Your task to perform on an android device: Search for razer blade on newegg, select the first entry, add it to the cart, then select checkout. Image 0: 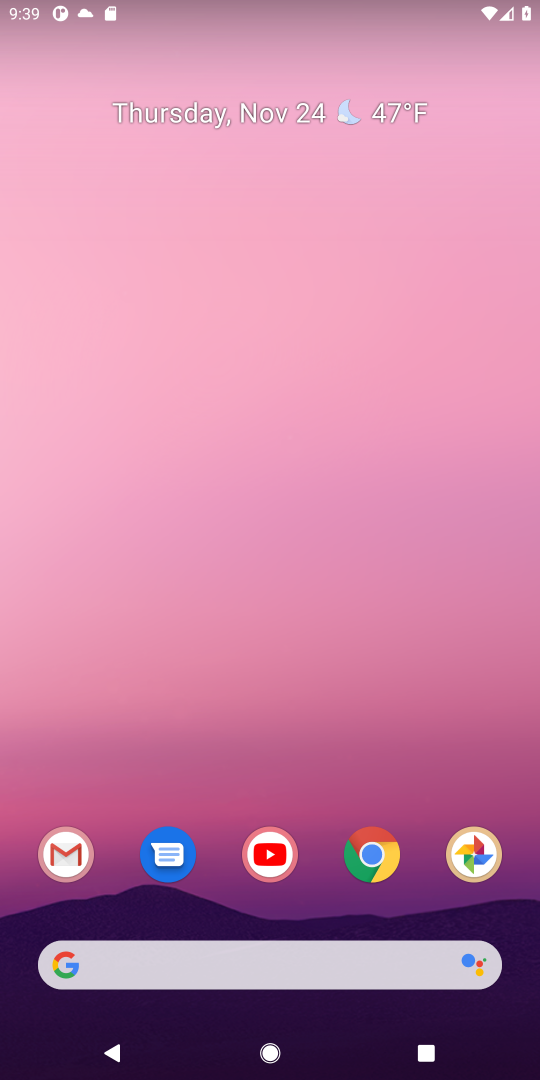
Step 0: click (374, 860)
Your task to perform on an android device: Search for razer blade on newegg, select the first entry, add it to the cart, then select checkout. Image 1: 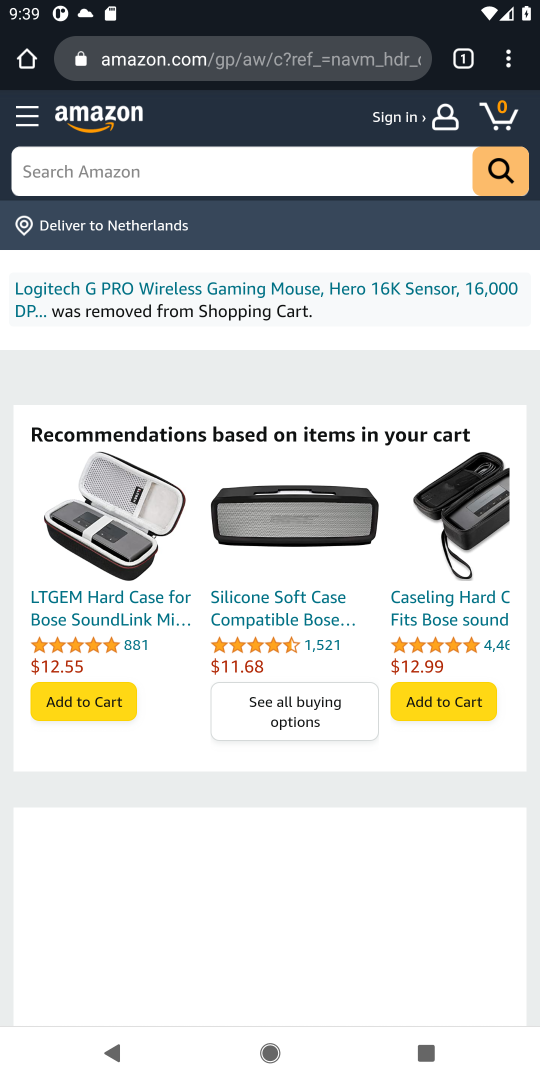
Step 1: click (250, 66)
Your task to perform on an android device: Search for razer blade on newegg, select the first entry, add it to the cart, then select checkout. Image 2: 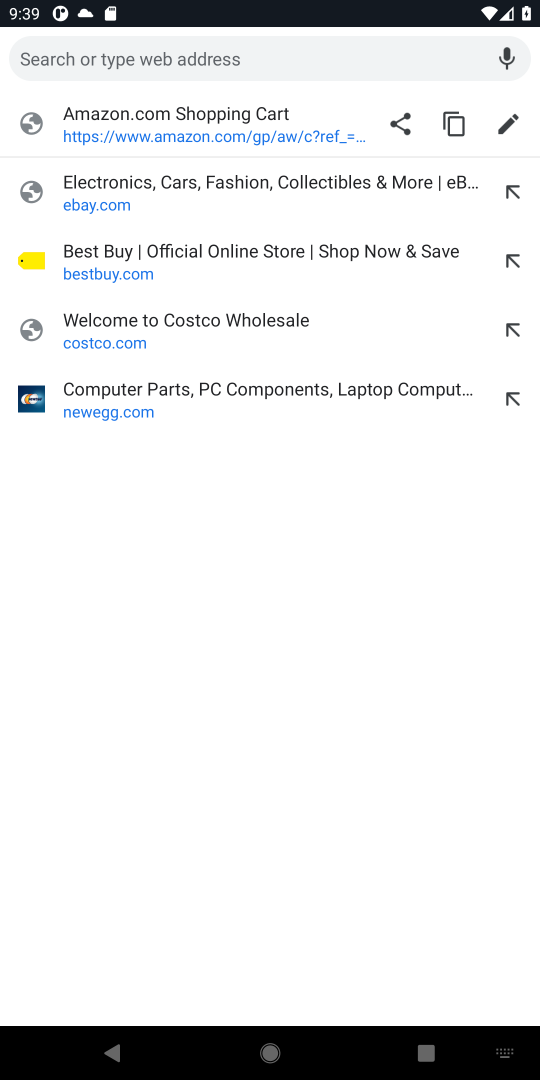
Step 2: click (85, 400)
Your task to perform on an android device: Search for razer blade on newegg, select the first entry, add it to the cart, then select checkout. Image 3: 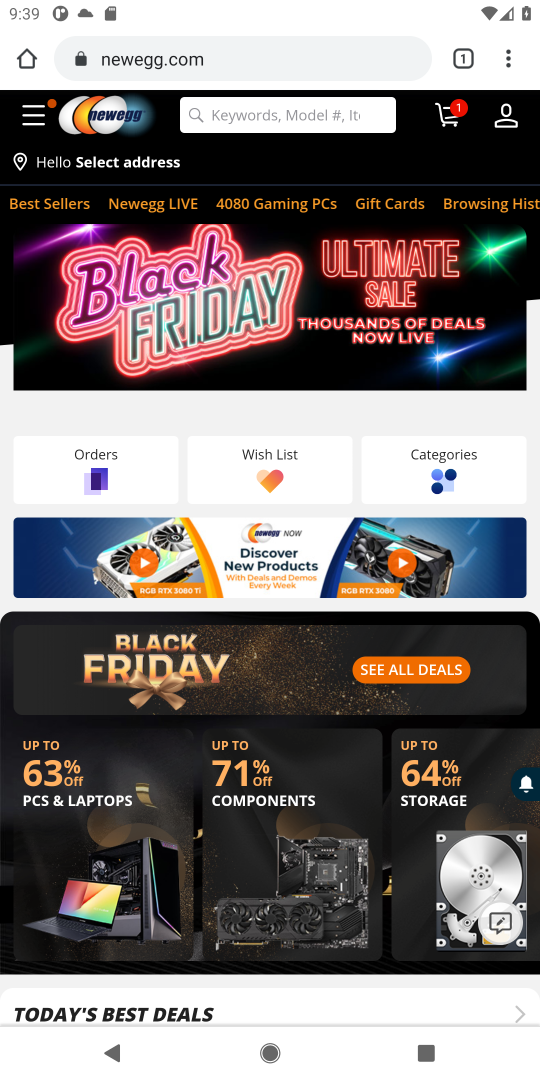
Step 3: click (306, 117)
Your task to perform on an android device: Search for razer blade on newegg, select the first entry, add it to the cart, then select checkout. Image 4: 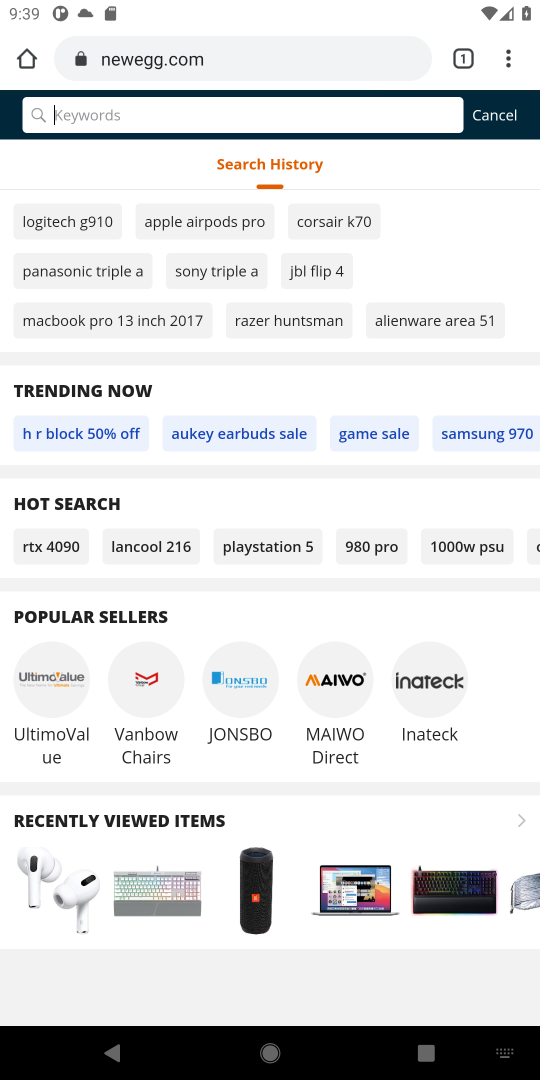
Step 4: type " razer blade"
Your task to perform on an android device: Search for razer blade on newegg, select the first entry, add it to the cart, then select checkout. Image 5: 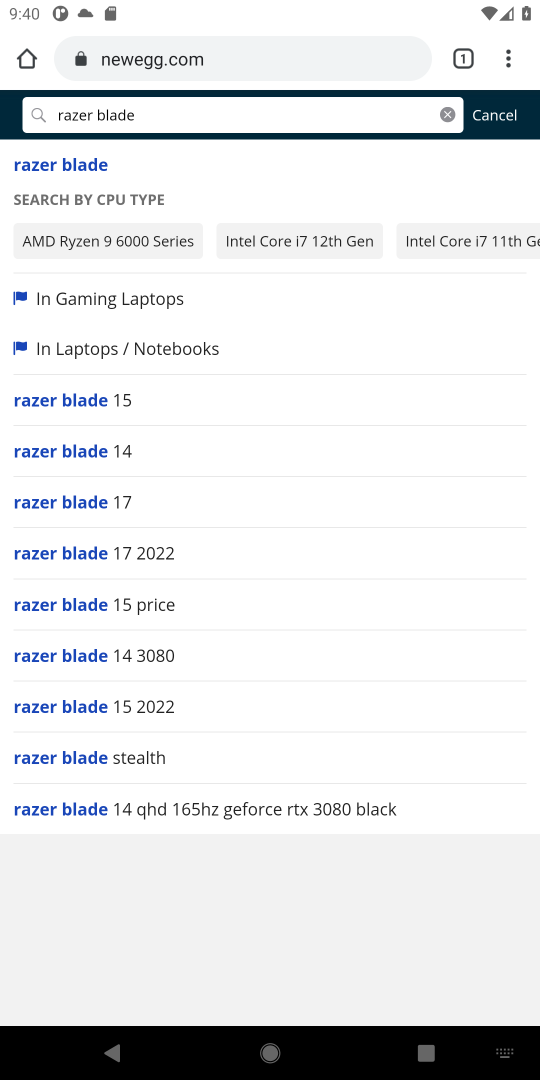
Step 5: click (48, 170)
Your task to perform on an android device: Search for razer blade on newegg, select the first entry, add it to the cart, then select checkout. Image 6: 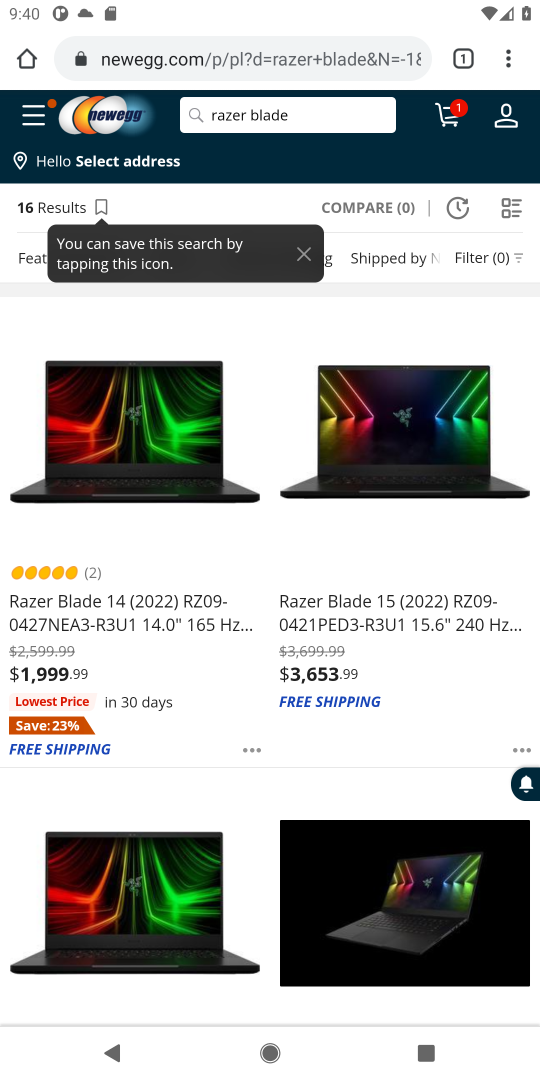
Step 6: click (109, 535)
Your task to perform on an android device: Search for razer blade on newegg, select the first entry, add it to the cart, then select checkout. Image 7: 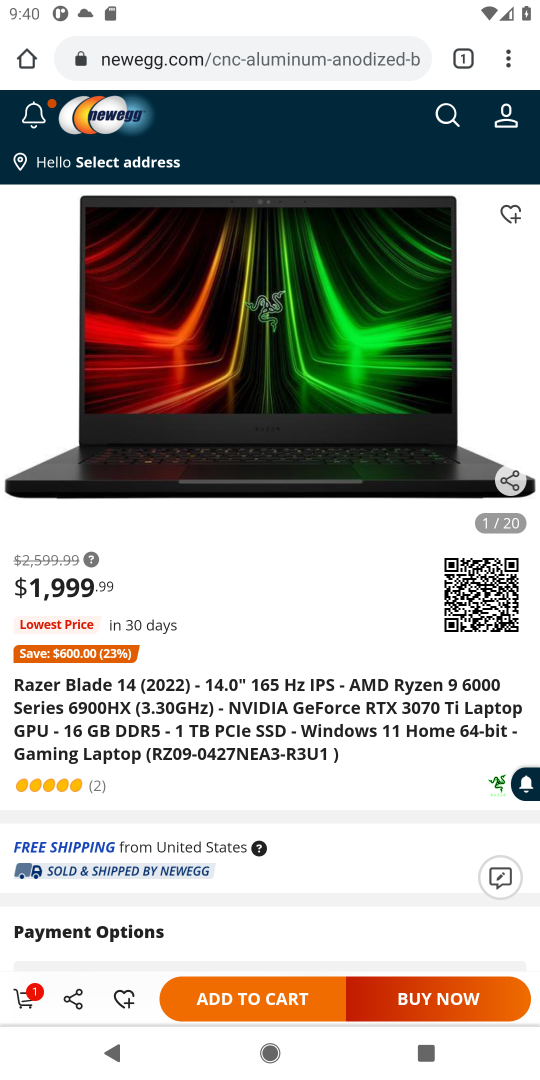
Step 7: click (232, 1004)
Your task to perform on an android device: Search for razer blade on newegg, select the first entry, add it to the cart, then select checkout. Image 8: 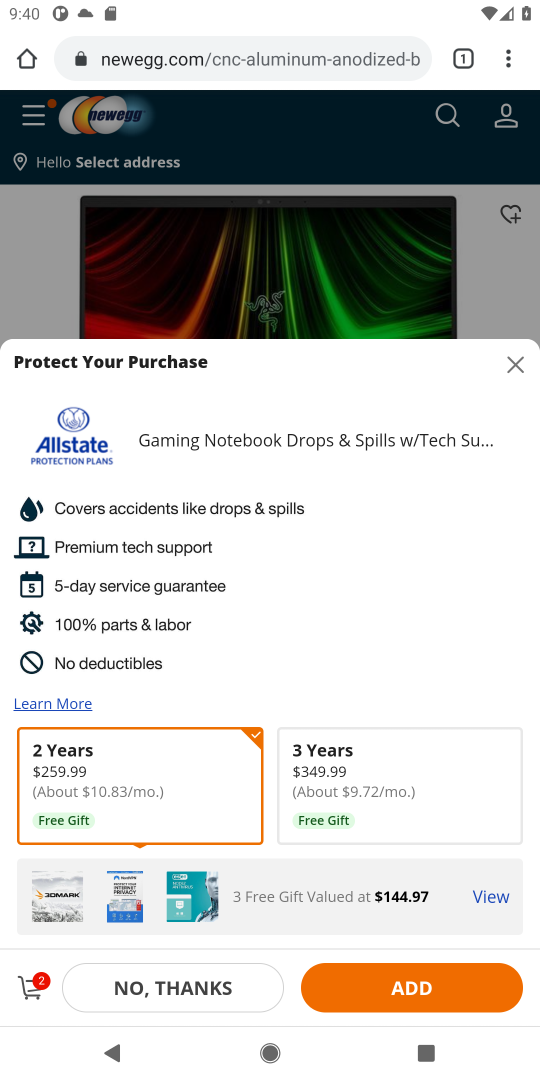
Step 8: click (35, 993)
Your task to perform on an android device: Search for razer blade on newegg, select the first entry, add it to the cart, then select checkout. Image 9: 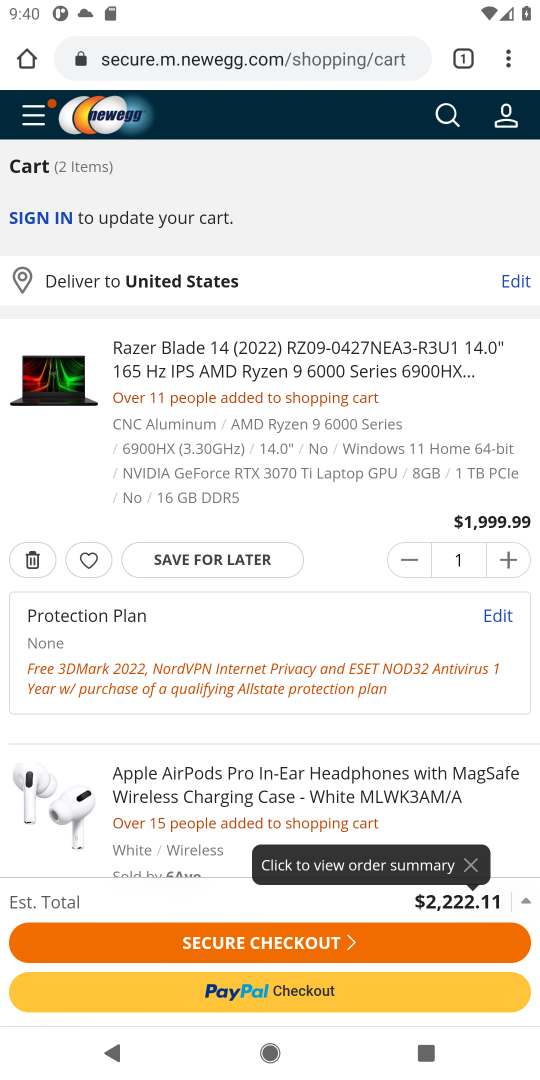
Step 9: click (242, 939)
Your task to perform on an android device: Search for razer blade on newegg, select the first entry, add it to the cart, then select checkout. Image 10: 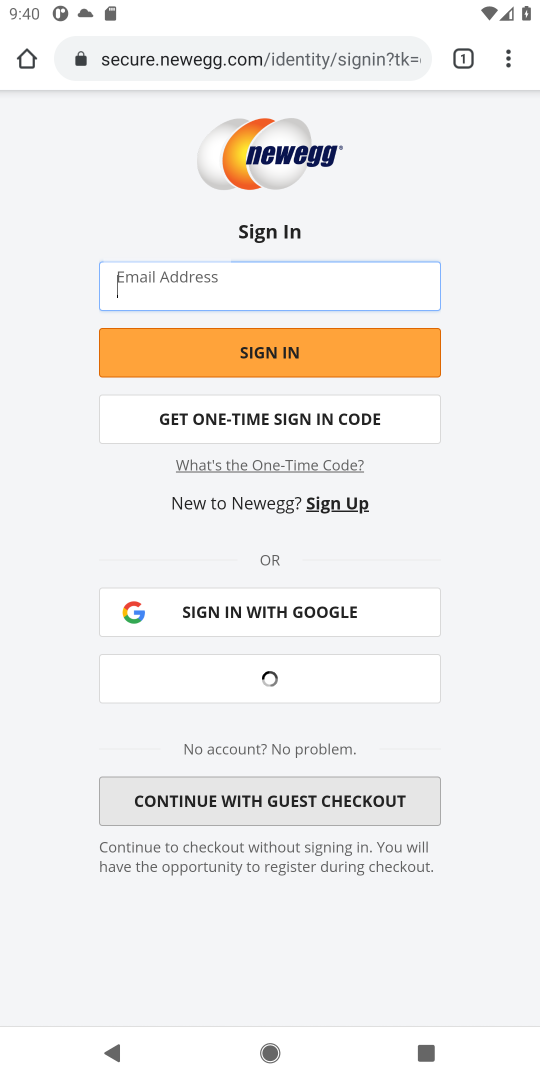
Step 10: task complete